Your task to perform on an android device: Open notification settings Image 0: 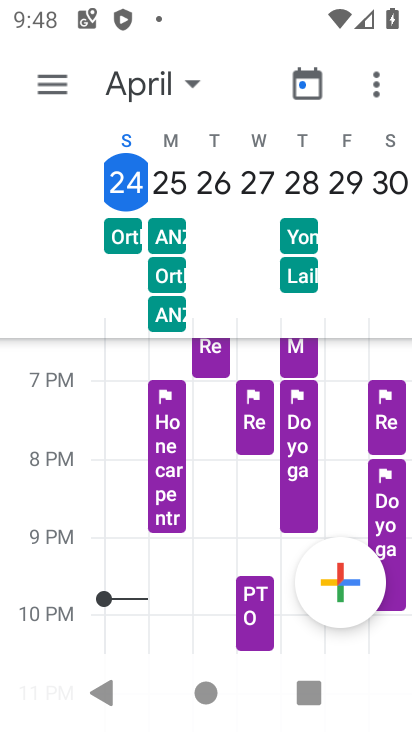
Step 0: press home button
Your task to perform on an android device: Open notification settings Image 1: 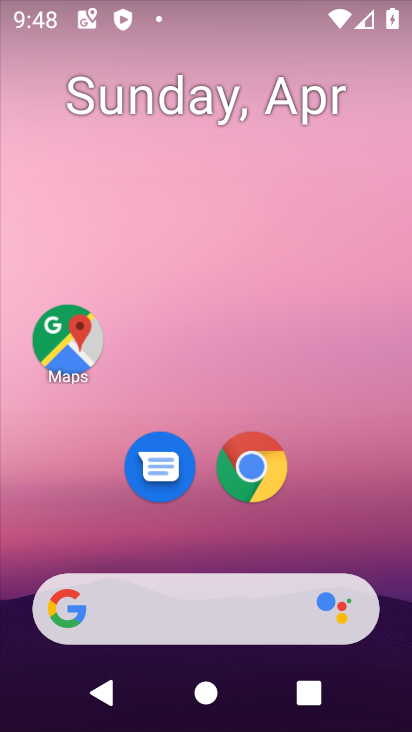
Step 1: drag from (211, 552) to (228, 34)
Your task to perform on an android device: Open notification settings Image 2: 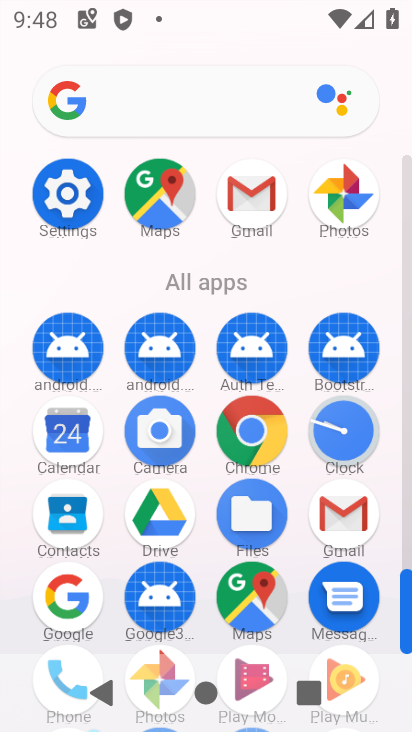
Step 2: click (73, 202)
Your task to perform on an android device: Open notification settings Image 3: 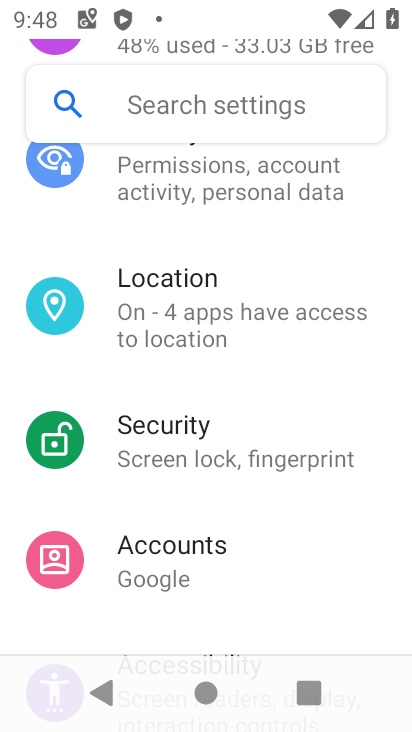
Step 3: drag from (247, 215) to (254, 621)
Your task to perform on an android device: Open notification settings Image 4: 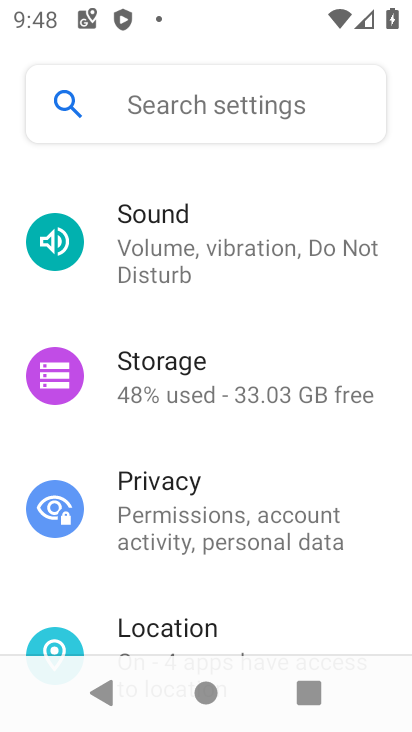
Step 4: drag from (241, 210) to (197, 630)
Your task to perform on an android device: Open notification settings Image 5: 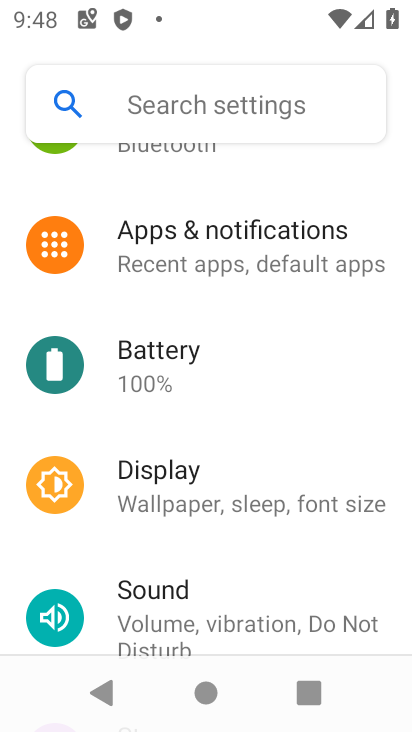
Step 5: click (228, 246)
Your task to perform on an android device: Open notification settings Image 6: 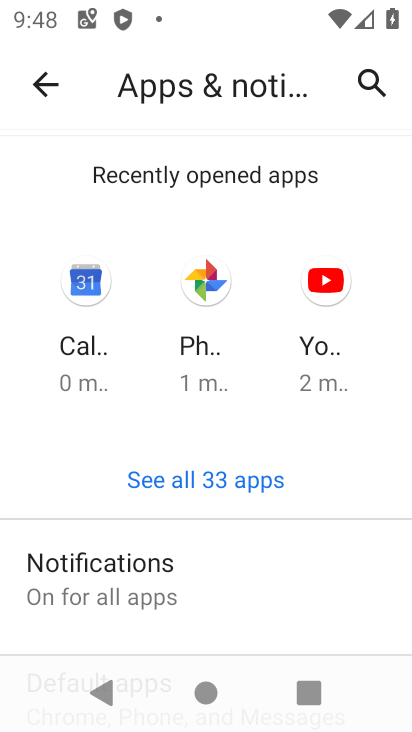
Step 6: click (156, 579)
Your task to perform on an android device: Open notification settings Image 7: 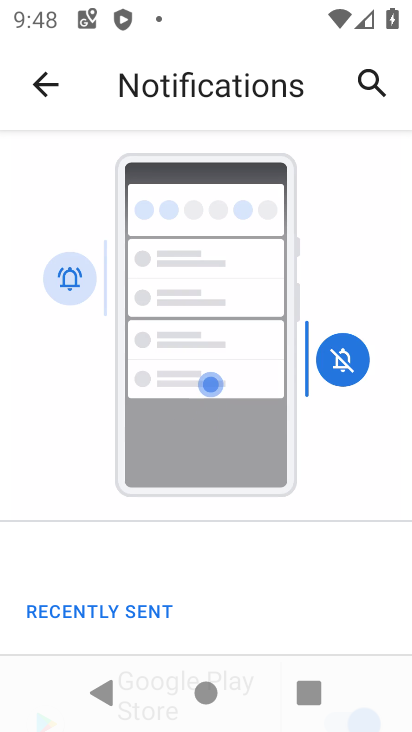
Step 7: task complete